Your task to perform on an android device: Open calendar and show me the fourth week of next month Image 0: 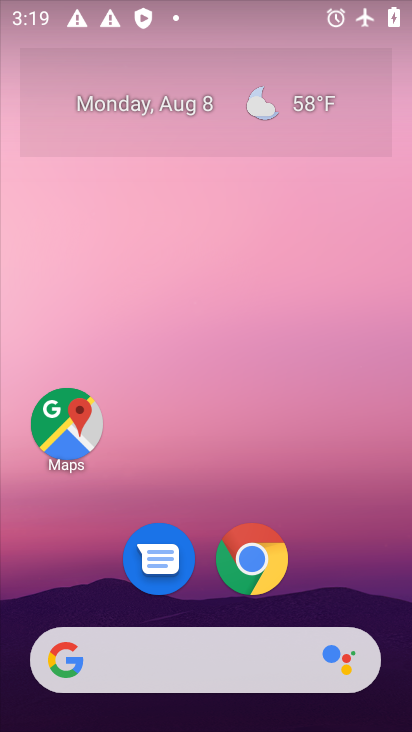
Step 0: drag from (188, 667) to (257, 171)
Your task to perform on an android device: Open calendar and show me the fourth week of next month Image 1: 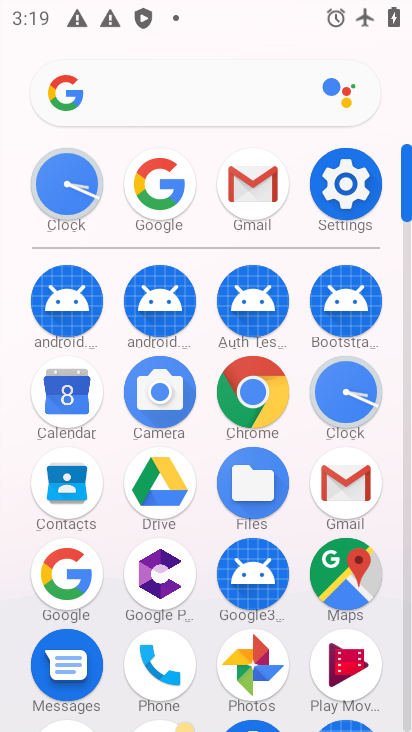
Step 1: click (66, 395)
Your task to perform on an android device: Open calendar and show me the fourth week of next month Image 2: 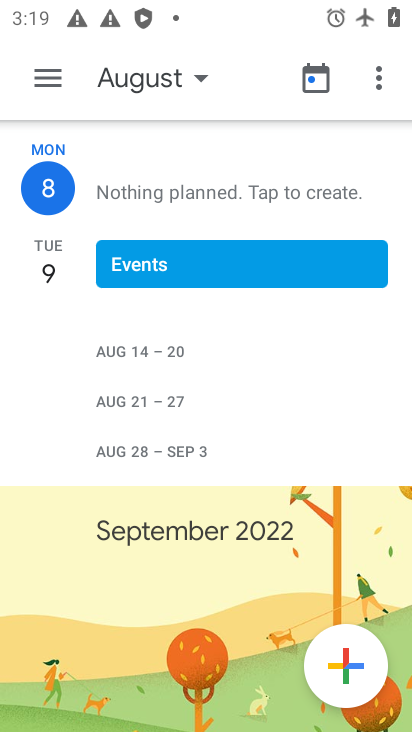
Step 2: click (200, 79)
Your task to perform on an android device: Open calendar and show me the fourth week of next month Image 3: 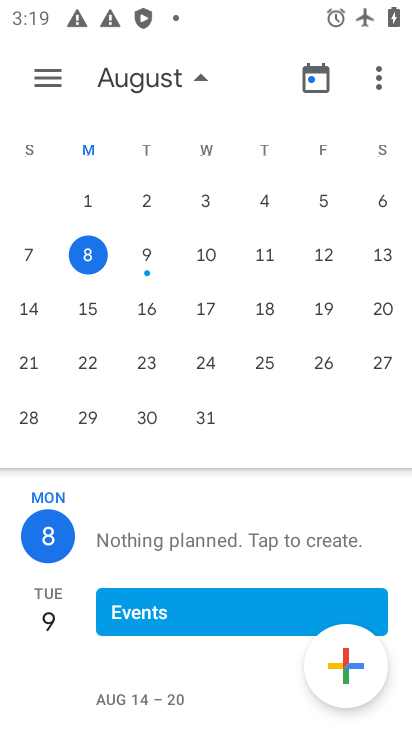
Step 3: drag from (383, 278) to (2, 262)
Your task to perform on an android device: Open calendar and show me the fourth week of next month Image 4: 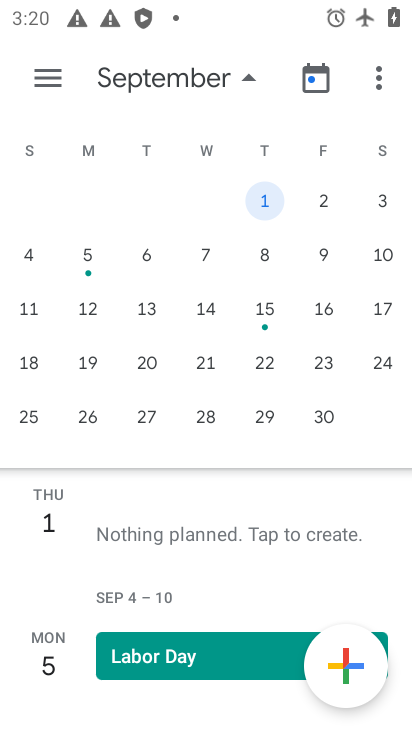
Step 4: click (94, 418)
Your task to perform on an android device: Open calendar and show me the fourth week of next month Image 5: 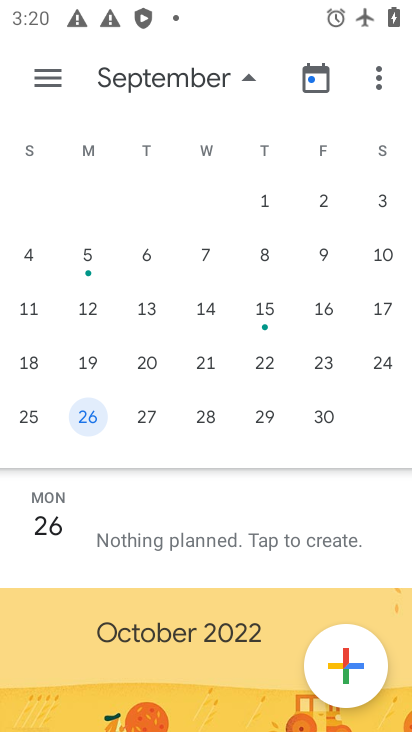
Step 5: click (53, 83)
Your task to perform on an android device: Open calendar and show me the fourth week of next month Image 6: 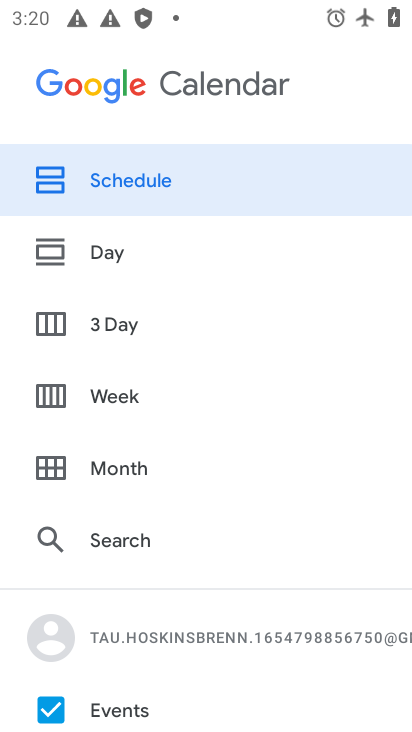
Step 6: click (112, 396)
Your task to perform on an android device: Open calendar and show me the fourth week of next month Image 7: 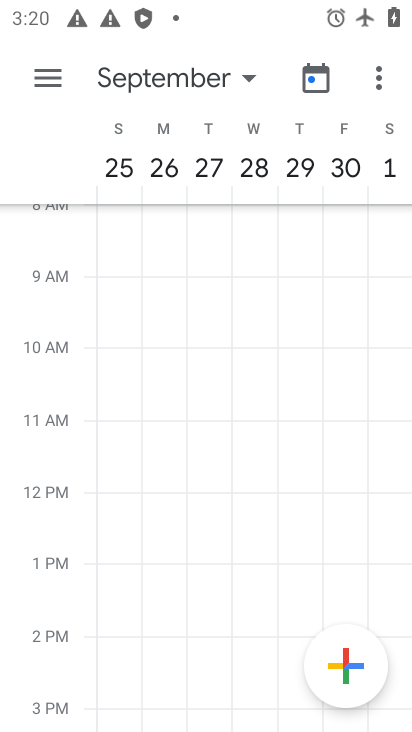
Step 7: task complete